Your task to perform on an android device: Clear the cart on ebay.com. Search for "razer blade" on ebay.com, select the first entry, add it to the cart, then select checkout. Image 0: 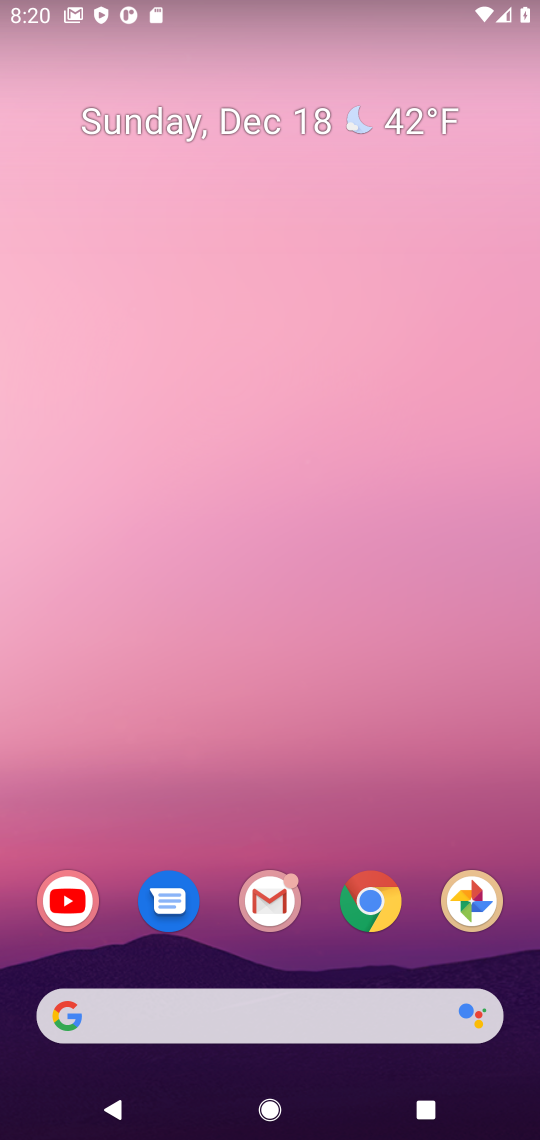
Step 0: click (376, 922)
Your task to perform on an android device: Clear the cart on ebay.com. Search for "razer blade" on ebay.com, select the first entry, add it to the cart, then select checkout. Image 1: 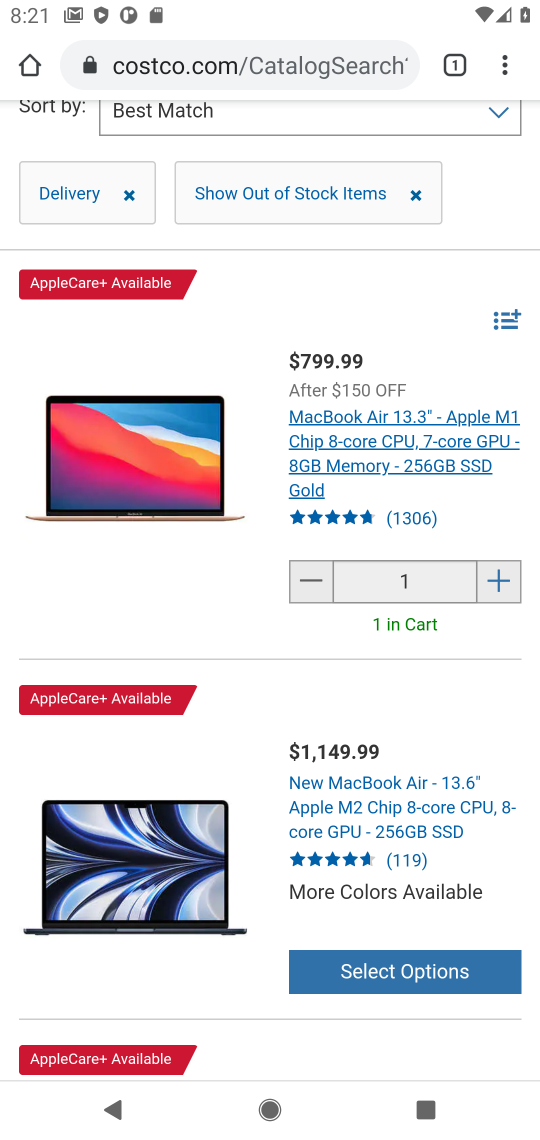
Step 1: click (492, 582)
Your task to perform on an android device: Clear the cart on ebay.com. Search for "razer blade" on ebay.com, select the first entry, add it to the cart, then select checkout. Image 2: 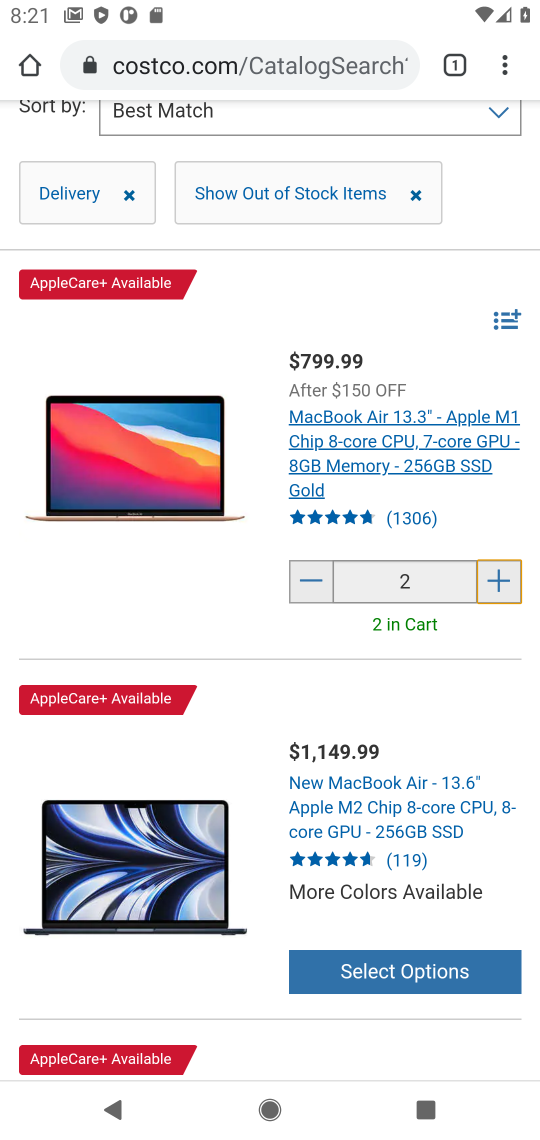
Step 2: task complete